Your task to perform on an android device: Open Amazon Image 0: 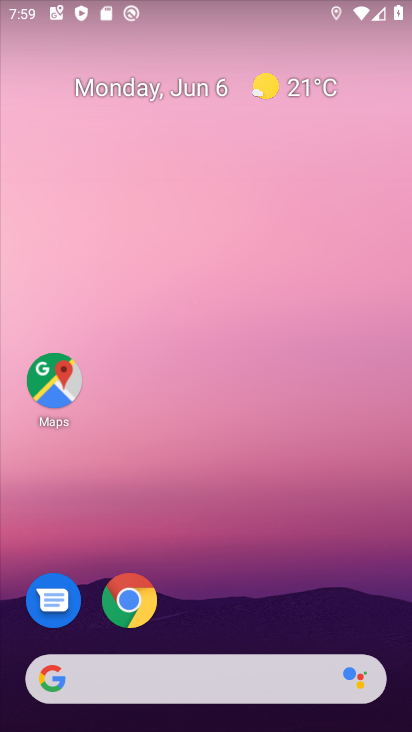
Step 0: click (131, 601)
Your task to perform on an android device: Open Amazon Image 1: 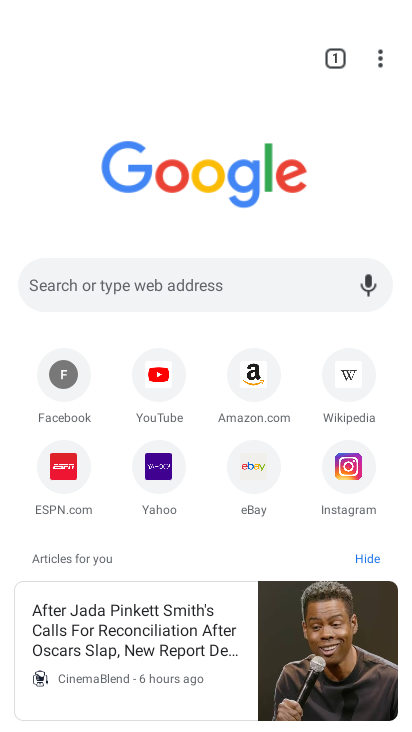
Step 1: click (243, 369)
Your task to perform on an android device: Open Amazon Image 2: 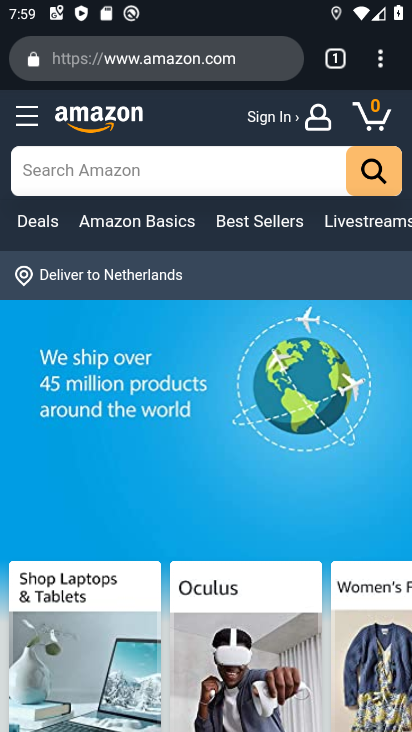
Step 2: task complete